Your task to perform on an android device: find photos in the google photos app Image 0: 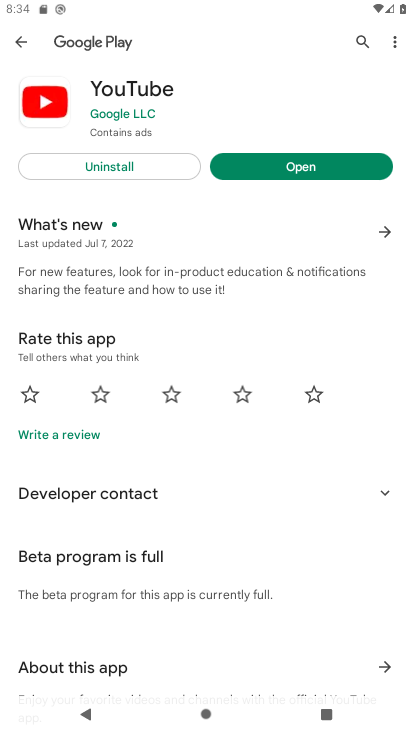
Step 0: press home button
Your task to perform on an android device: find photos in the google photos app Image 1: 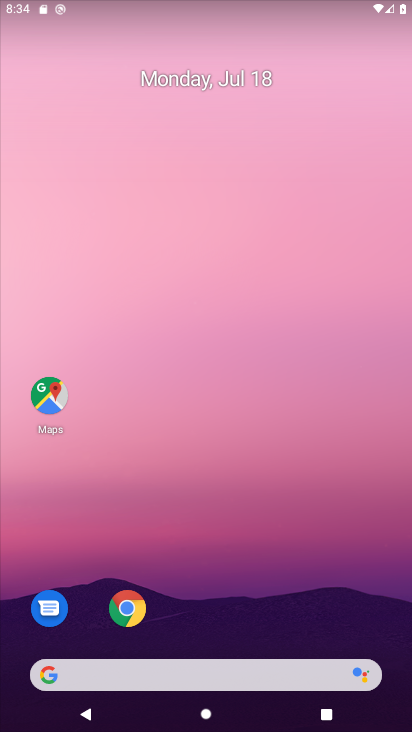
Step 1: drag from (238, 686) to (254, 67)
Your task to perform on an android device: find photos in the google photos app Image 2: 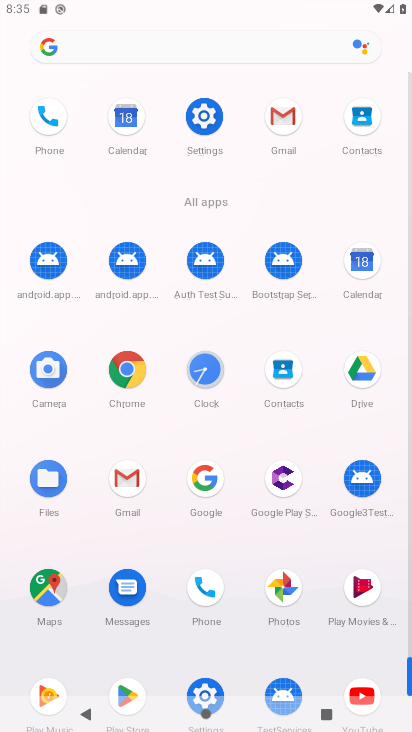
Step 2: click (284, 590)
Your task to perform on an android device: find photos in the google photos app Image 3: 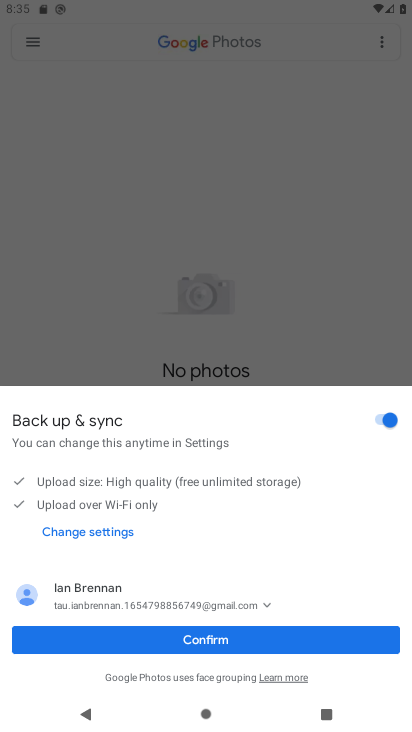
Step 3: click (212, 647)
Your task to perform on an android device: find photos in the google photos app Image 4: 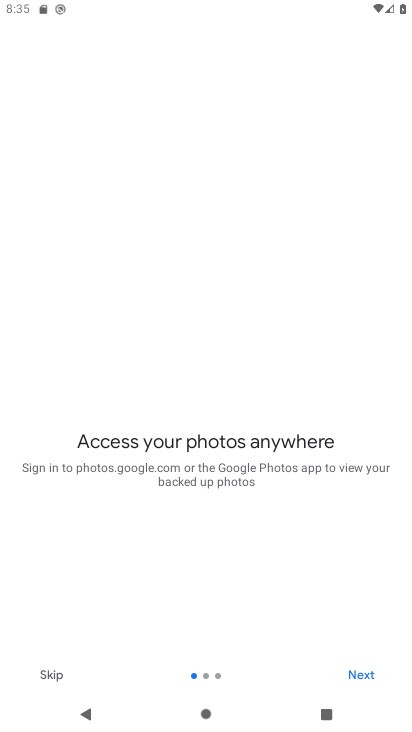
Step 4: click (364, 673)
Your task to perform on an android device: find photos in the google photos app Image 5: 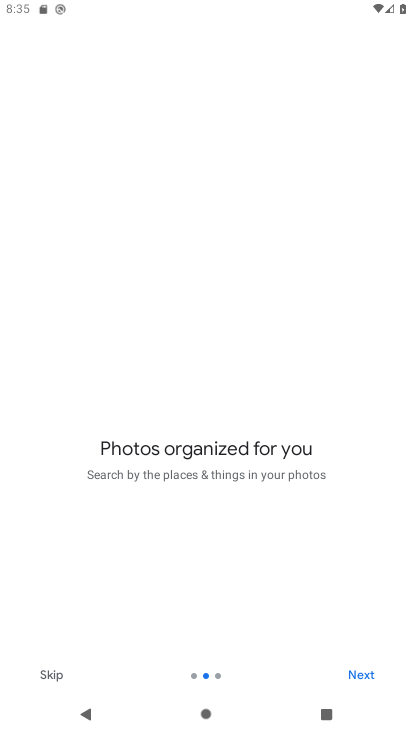
Step 5: click (364, 673)
Your task to perform on an android device: find photos in the google photos app Image 6: 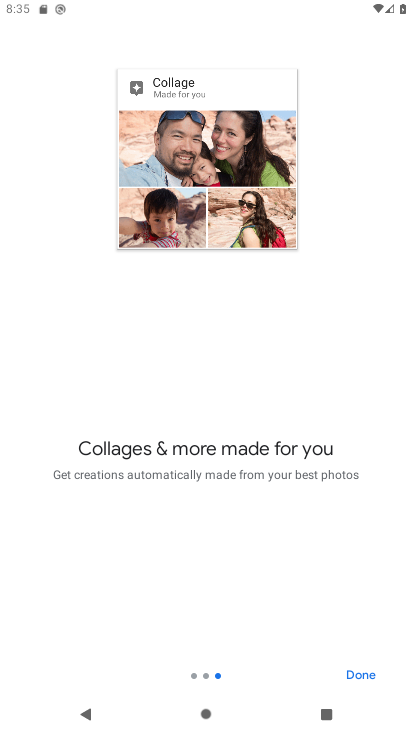
Step 6: click (364, 673)
Your task to perform on an android device: find photos in the google photos app Image 7: 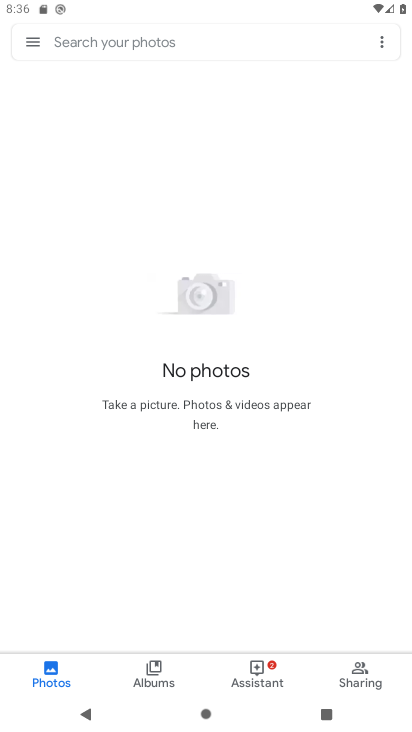
Step 7: click (35, 42)
Your task to perform on an android device: find photos in the google photos app Image 8: 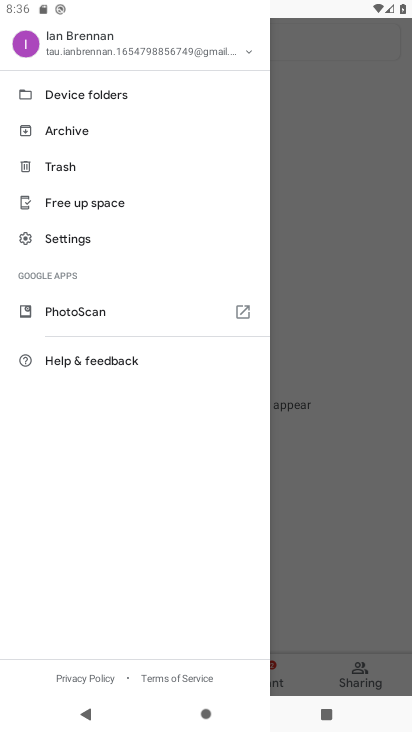
Step 8: click (79, 241)
Your task to perform on an android device: find photos in the google photos app Image 9: 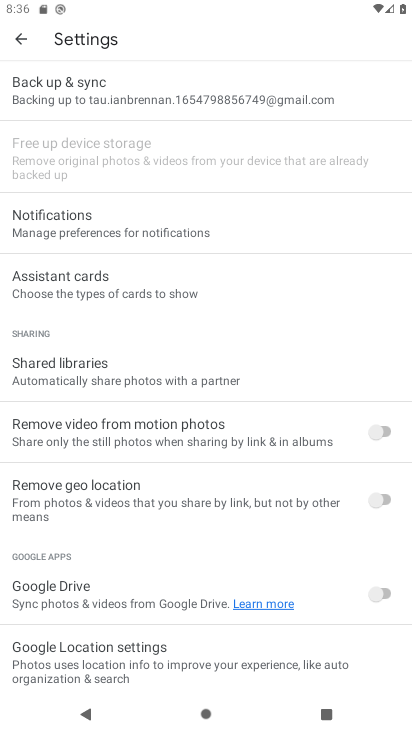
Step 9: press back button
Your task to perform on an android device: find photos in the google photos app Image 10: 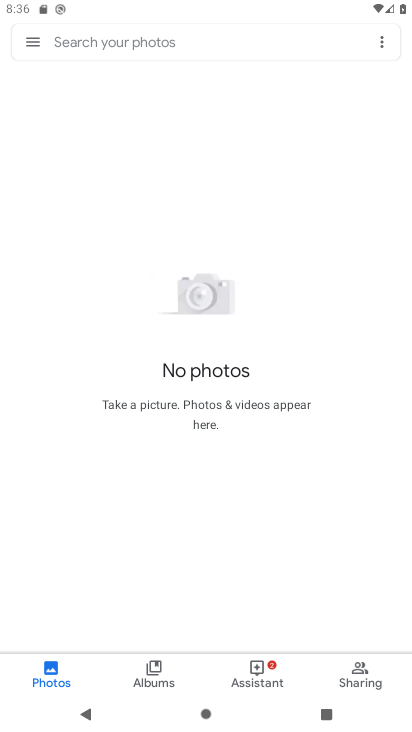
Step 10: click (150, 668)
Your task to perform on an android device: find photos in the google photos app Image 11: 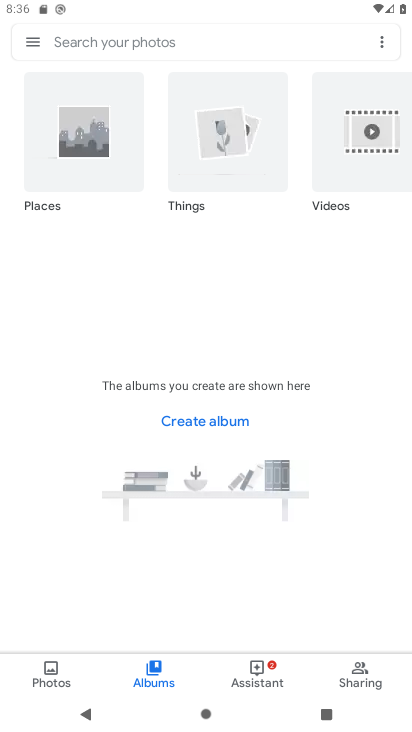
Step 11: drag from (354, 161) to (165, 168)
Your task to perform on an android device: find photos in the google photos app Image 12: 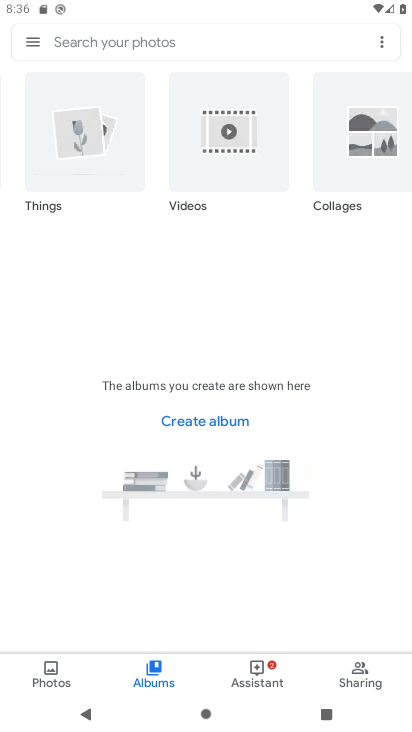
Step 12: drag from (360, 152) to (126, 167)
Your task to perform on an android device: find photos in the google photos app Image 13: 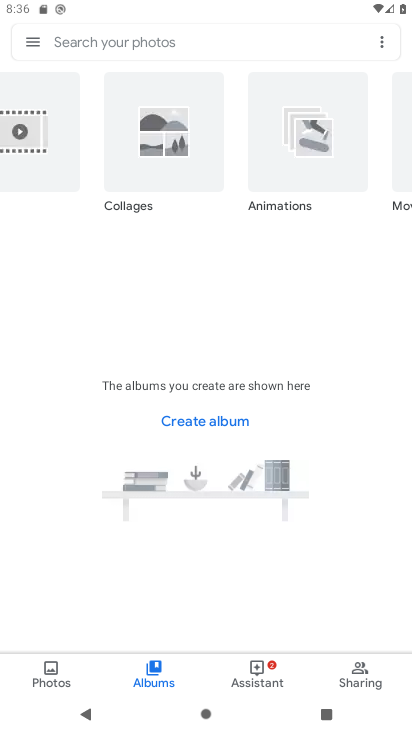
Step 13: drag from (346, 177) to (121, 190)
Your task to perform on an android device: find photos in the google photos app Image 14: 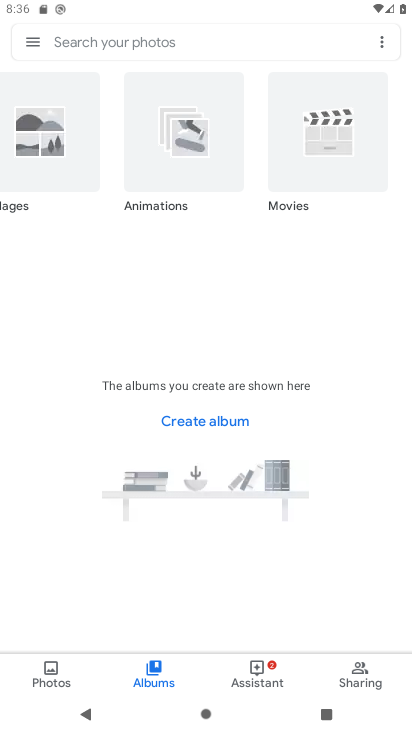
Step 14: drag from (359, 150) to (126, 170)
Your task to perform on an android device: find photos in the google photos app Image 15: 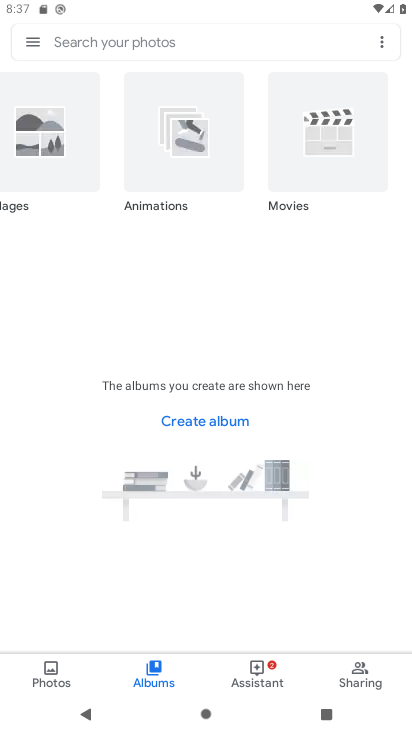
Step 15: drag from (165, 154) to (368, 161)
Your task to perform on an android device: find photos in the google photos app Image 16: 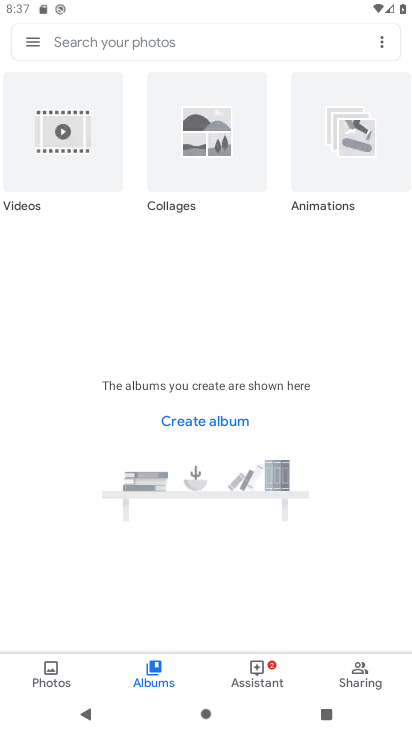
Step 16: click (205, 146)
Your task to perform on an android device: find photos in the google photos app Image 17: 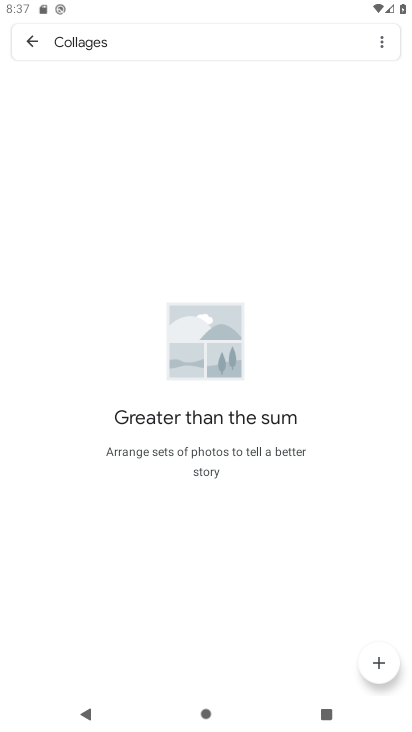
Step 17: task complete